Your task to perform on an android device: Open Chrome and go to the settings page Image 0: 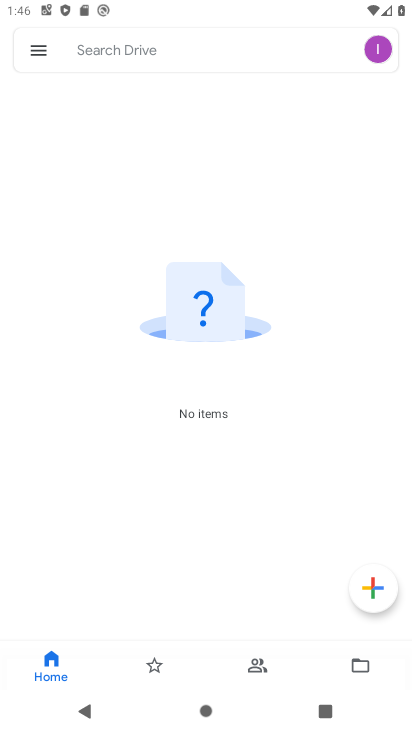
Step 0: press home button
Your task to perform on an android device: Open Chrome and go to the settings page Image 1: 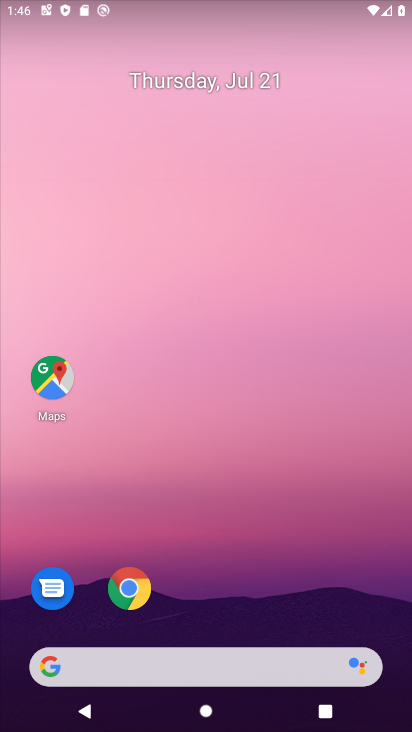
Step 1: click (146, 595)
Your task to perform on an android device: Open Chrome and go to the settings page Image 2: 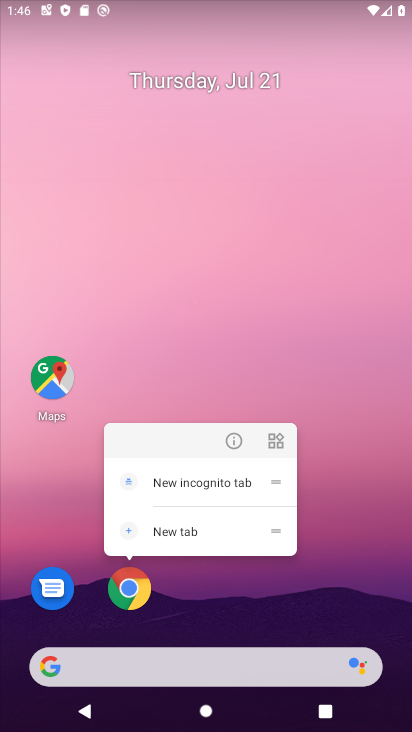
Step 2: click (147, 592)
Your task to perform on an android device: Open Chrome and go to the settings page Image 3: 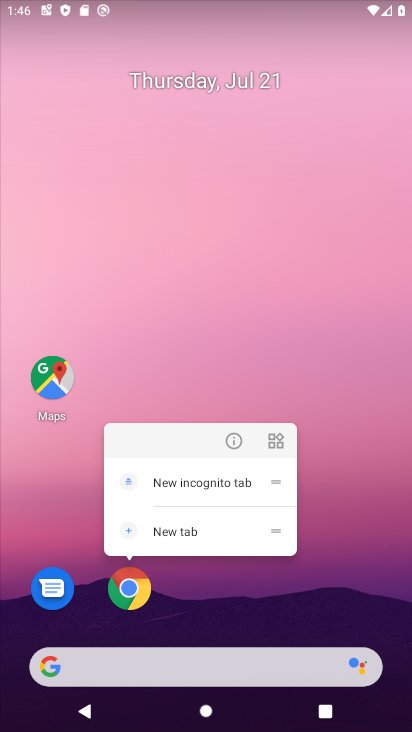
Step 3: click (122, 591)
Your task to perform on an android device: Open Chrome and go to the settings page Image 4: 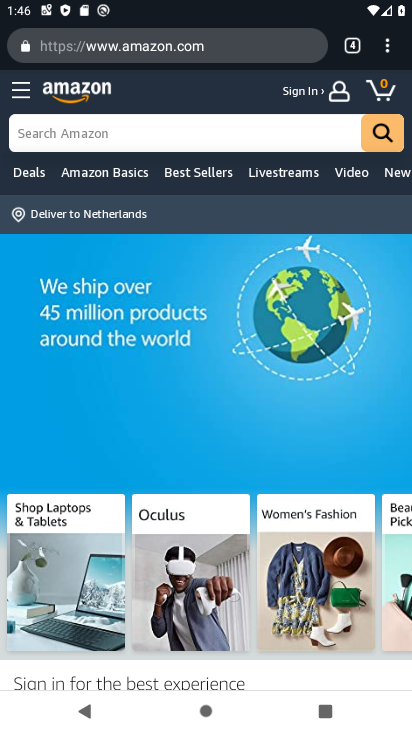
Step 4: click (389, 46)
Your task to perform on an android device: Open Chrome and go to the settings page Image 5: 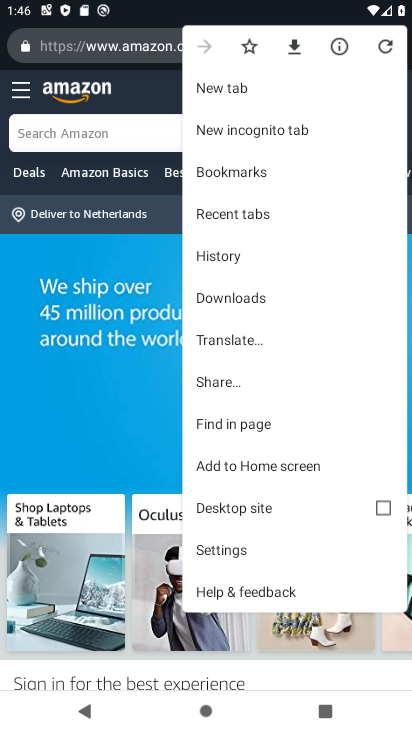
Step 5: click (248, 547)
Your task to perform on an android device: Open Chrome and go to the settings page Image 6: 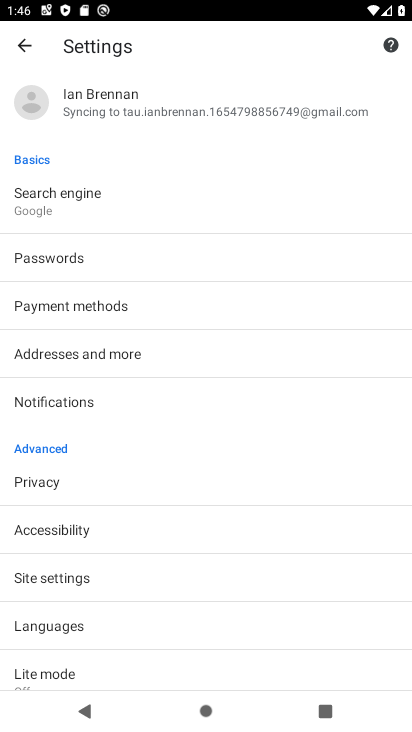
Step 6: task complete